Your task to perform on an android device: Do I have any events today? Image 0: 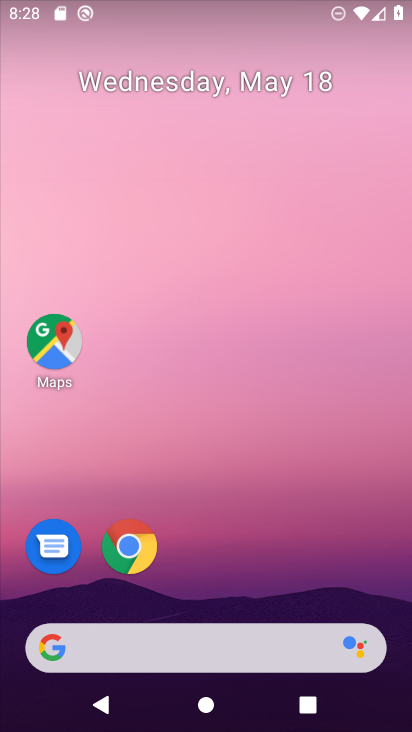
Step 0: drag from (235, 672) to (325, 287)
Your task to perform on an android device: Do I have any events today? Image 1: 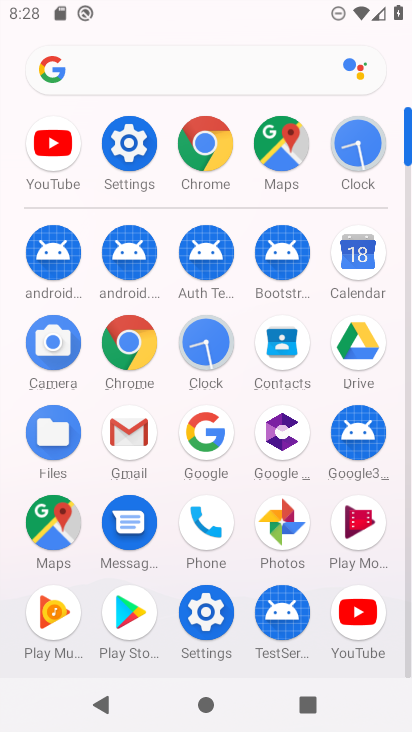
Step 1: click (134, 75)
Your task to perform on an android device: Do I have any events today? Image 2: 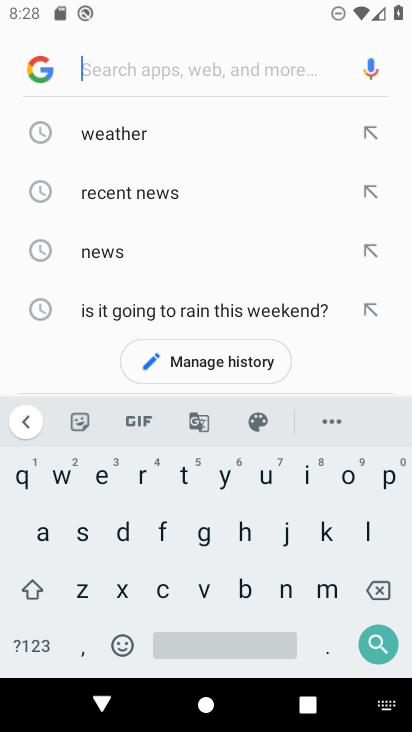
Step 2: press home button
Your task to perform on an android device: Do I have any events today? Image 3: 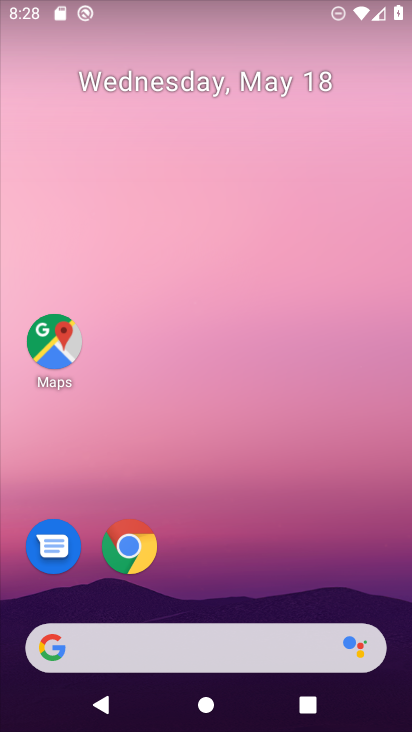
Step 3: drag from (246, 671) to (372, 190)
Your task to perform on an android device: Do I have any events today? Image 4: 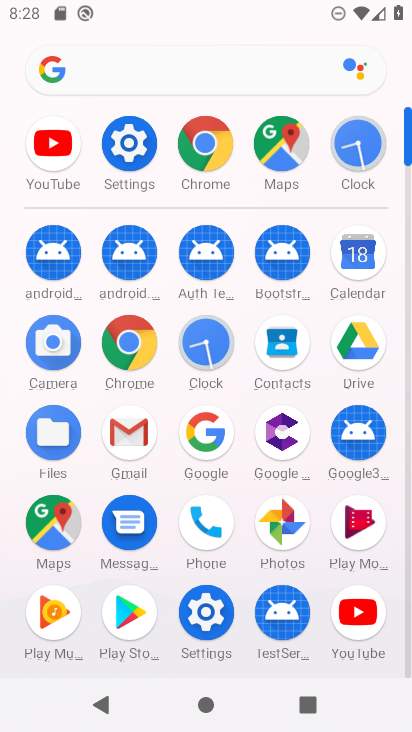
Step 4: click (349, 271)
Your task to perform on an android device: Do I have any events today? Image 5: 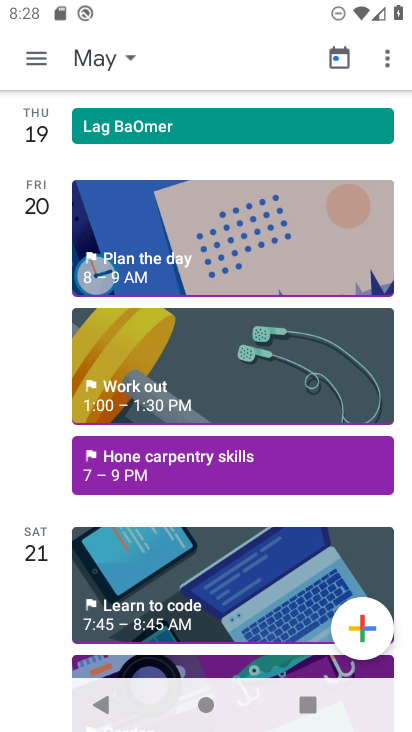
Step 5: task complete